Your task to perform on an android device: toggle pop-ups in chrome Image 0: 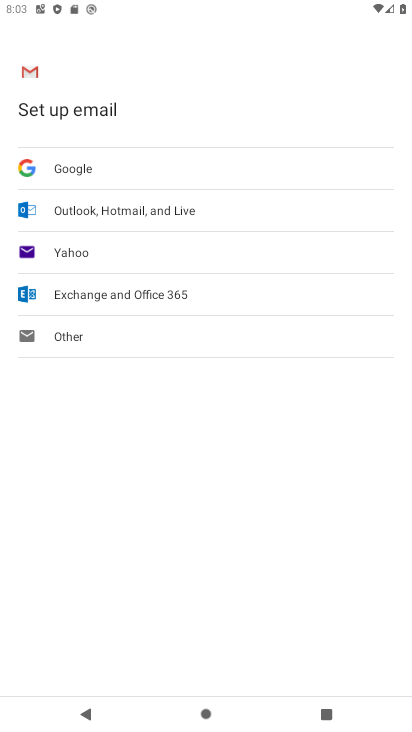
Step 0: press home button
Your task to perform on an android device: toggle pop-ups in chrome Image 1: 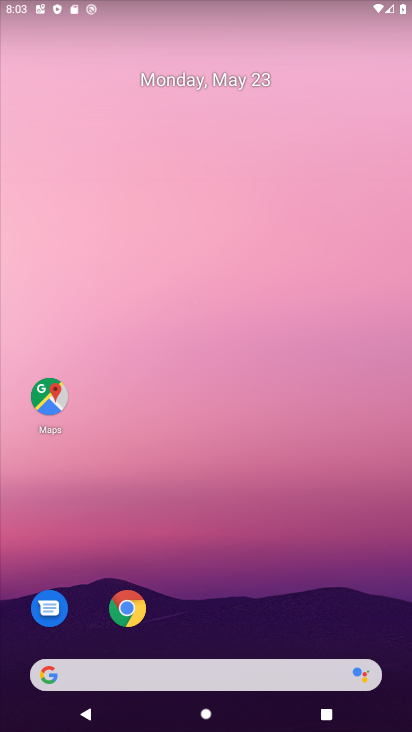
Step 1: click (129, 622)
Your task to perform on an android device: toggle pop-ups in chrome Image 2: 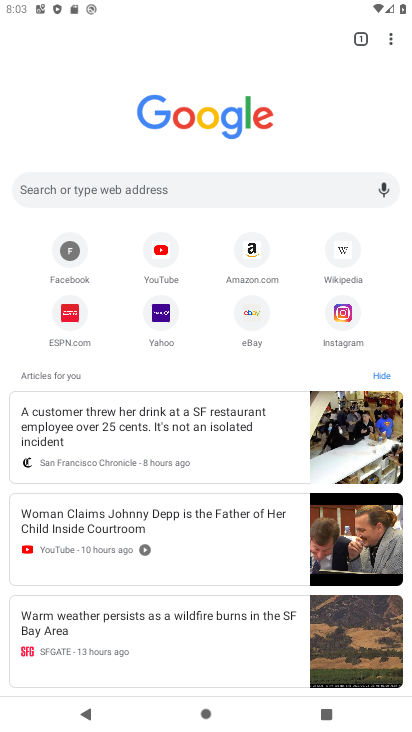
Step 2: drag from (399, 44) to (276, 330)
Your task to perform on an android device: toggle pop-ups in chrome Image 3: 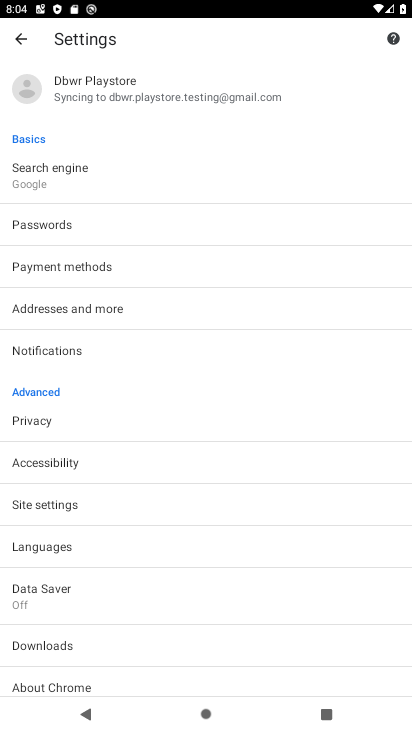
Step 3: click (54, 509)
Your task to perform on an android device: toggle pop-ups in chrome Image 4: 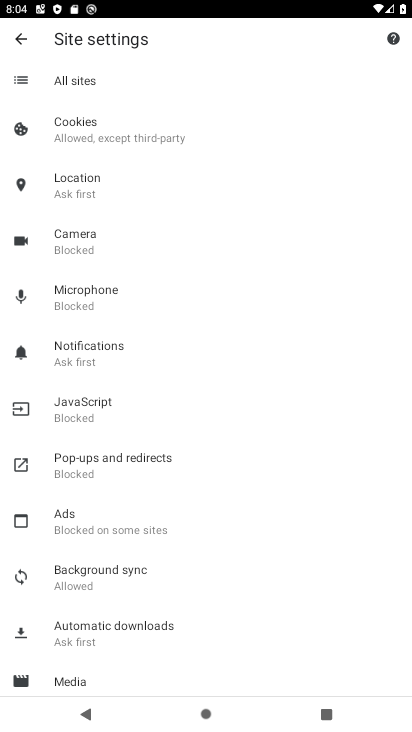
Step 4: click (140, 469)
Your task to perform on an android device: toggle pop-ups in chrome Image 5: 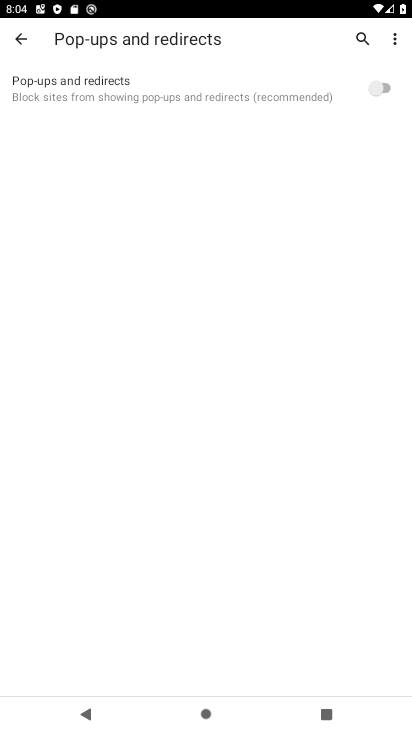
Step 5: click (377, 82)
Your task to perform on an android device: toggle pop-ups in chrome Image 6: 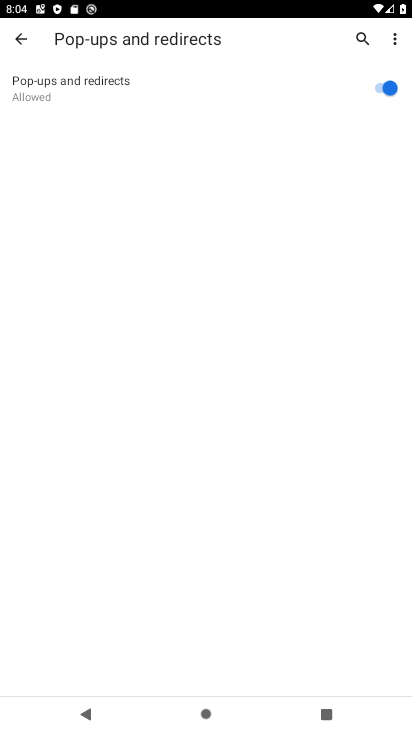
Step 6: task complete